Your task to perform on an android device: Open network settings Image 0: 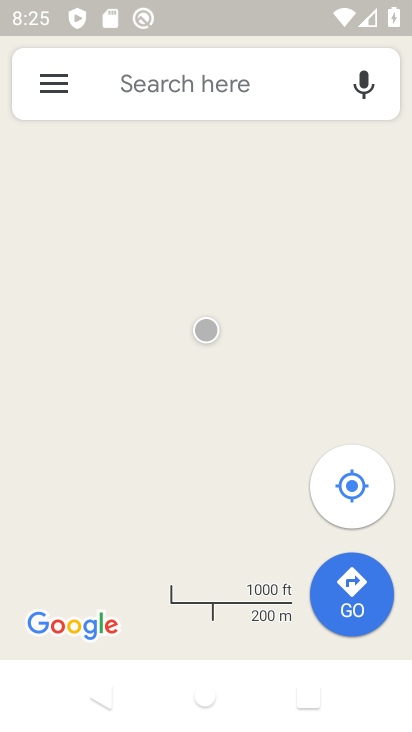
Step 0: press home button
Your task to perform on an android device: Open network settings Image 1: 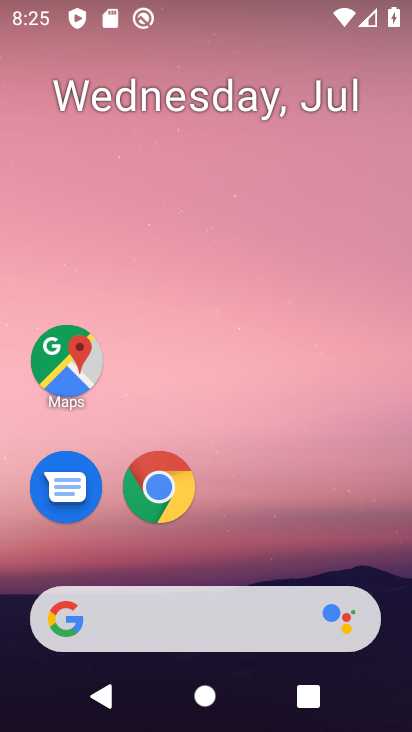
Step 1: drag from (216, 585) to (317, 8)
Your task to perform on an android device: Open network settings Image 2: 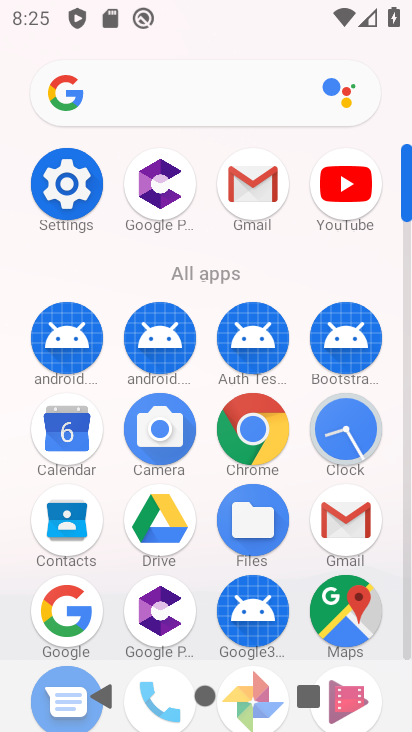
Step 2: click (80, 166)
Your task to perform on an android device: Open network settings Image 3: 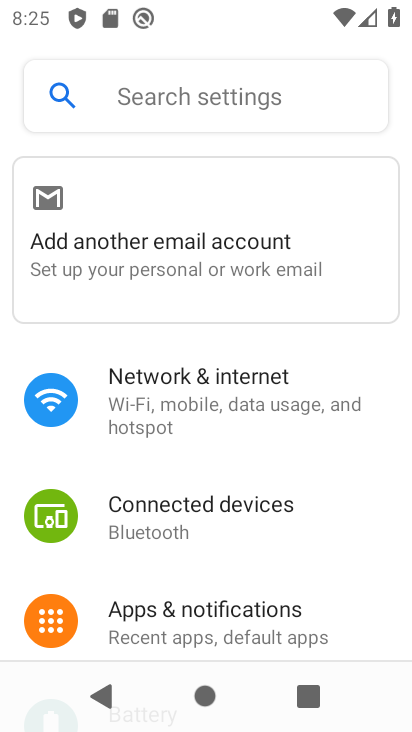
Step 3: click (193, 373)
Your task to perform on an android device: Open network settings Image 4: 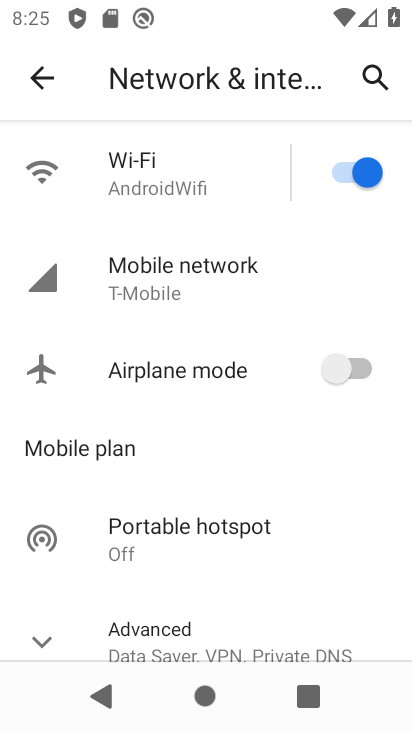
Step 4: click (211, 288)
Your task to perform on an android device: Open network settings Image 5: 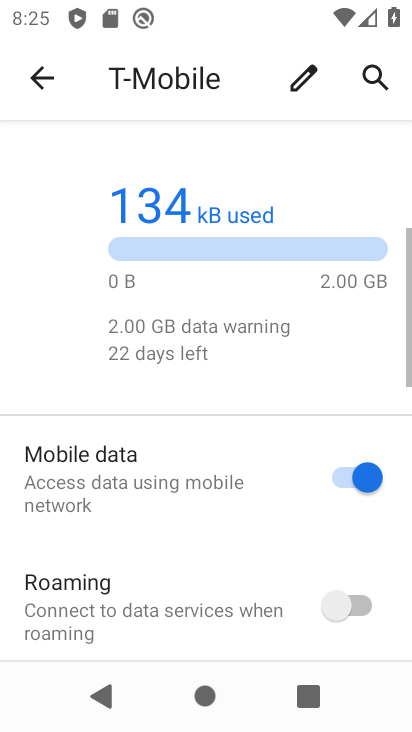
Step 5: task complete